Your task to perform on an android device: Do I have any events today? Image 0: 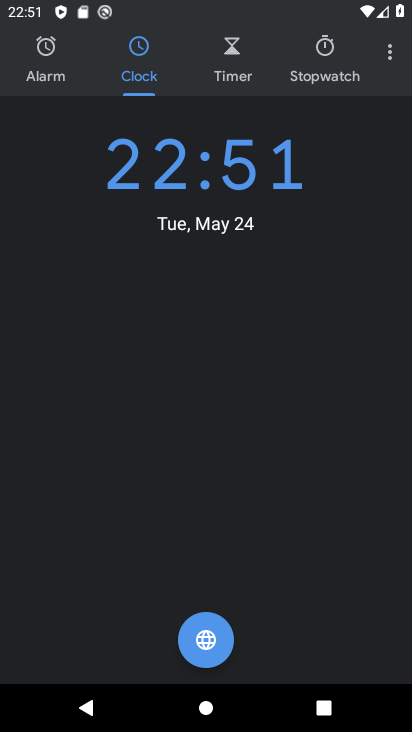
Step 0: press home button
Your task to perform on an android device: Do I have any events today? Image 1: 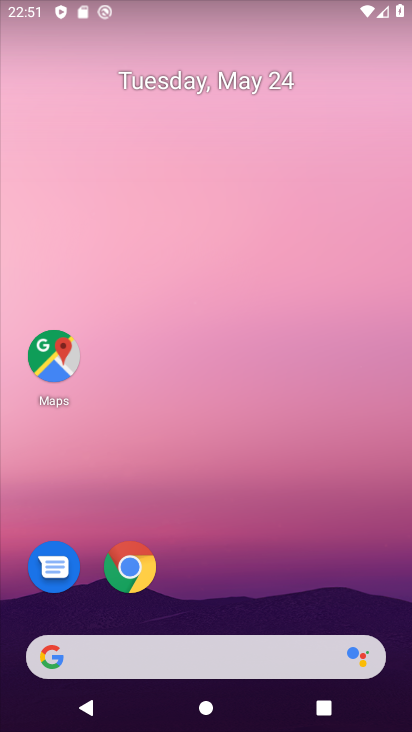
Step 1: click (185, 79)
Your task to perform on an android device: Do I have any events today? Image 2: 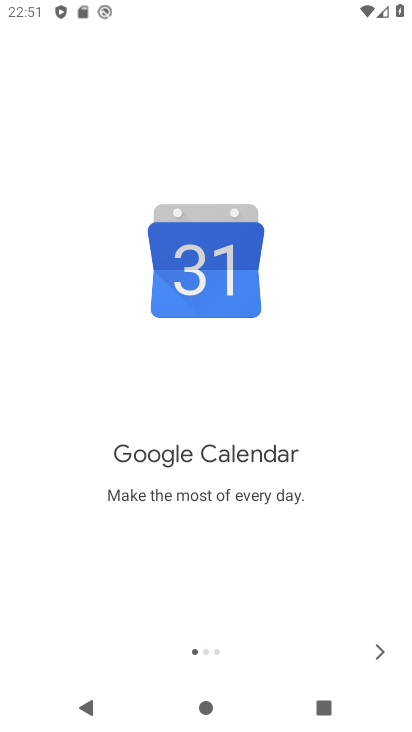
Step 2: click (376, 645)
Your task to perform on an android device: Do I have any events today? Image 3: 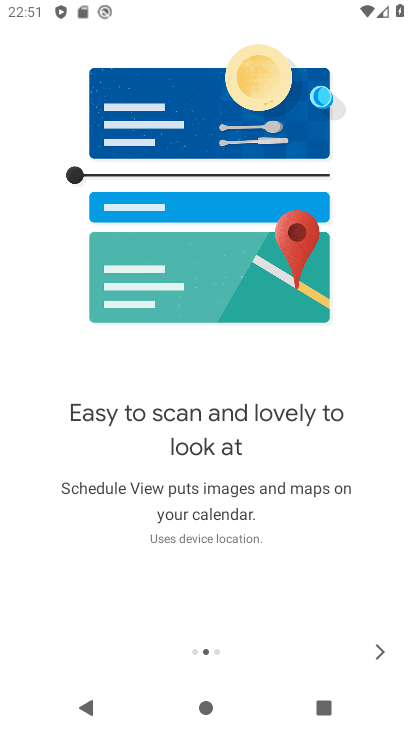
Step 3: click (376, 647)
Your task to perform on an android device: Do I have any events today? Image 4: 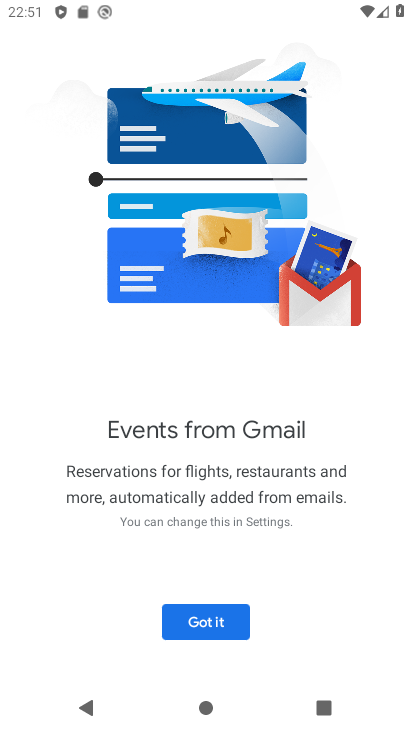
Step 4: click (213, 616)
Your task to perform on an android device: Do I have any events today? Image 5: 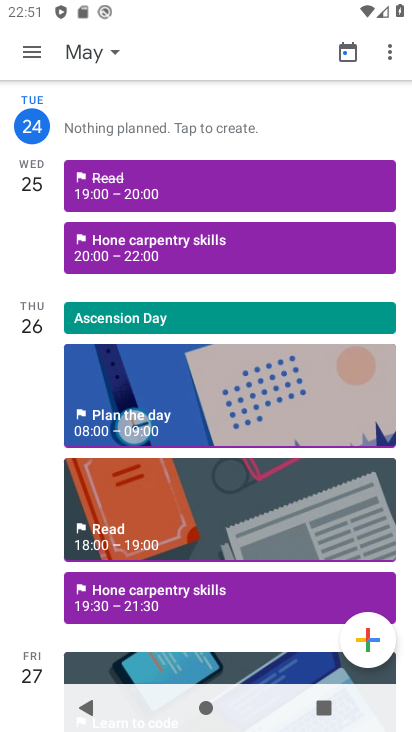
Step 5: task complete